Your task to perform on an android device: manage bookmarks in the chrome app Image 0: 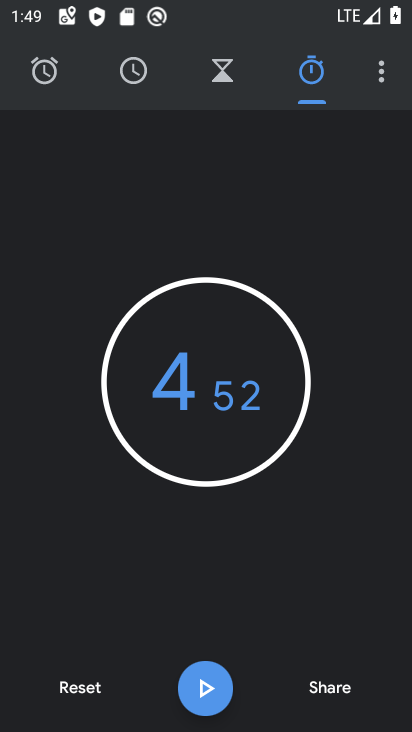
Step 0: press home button
Your task to perform on an android device: manage bookmarks in the chrome app Image 1: 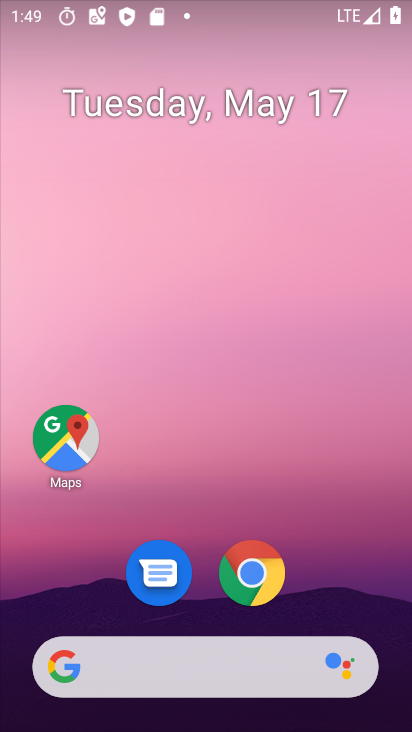
Step 1: click (264, 561)
Your task to perform on an android device: manage bookmarks in the chrome app Image 2: 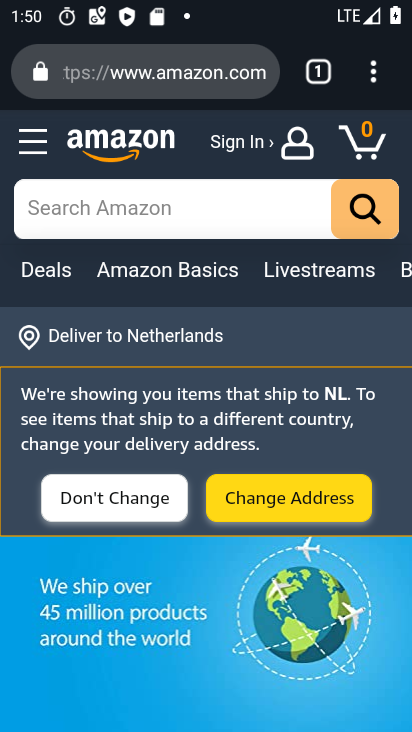
Step 2: click (376, 66)
Your task to perform on an android device: manage bookmarks in the chrome app Image 3: 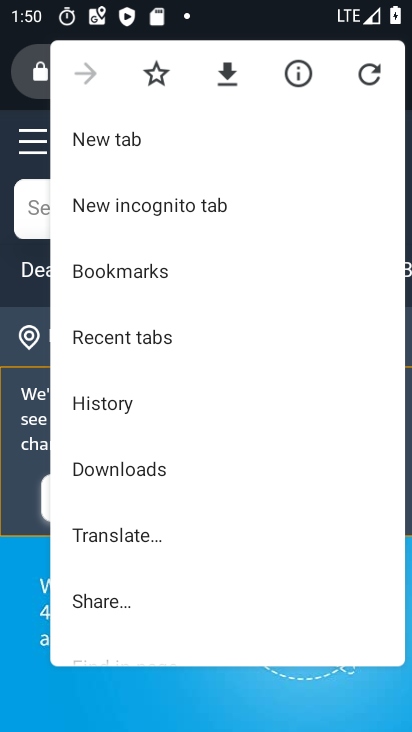
Step 3: click (172, 278)
Your task to perform on an android device: manage bookmarks in the chrome app Image 4: 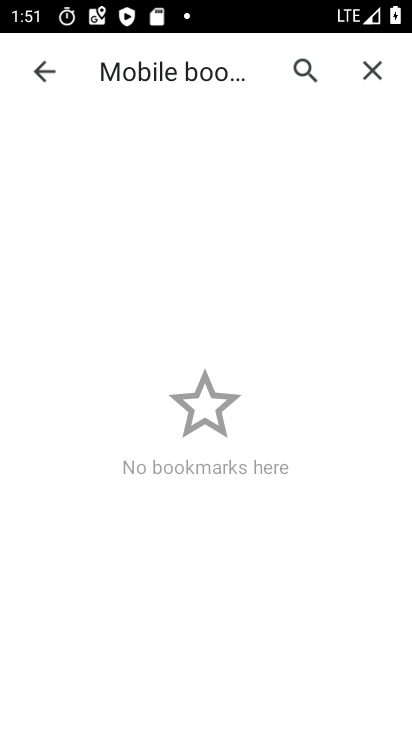
Step 4: click (383, 77)
Your task to perform on an android device: manage bookmarks in the chrome app Image 5: 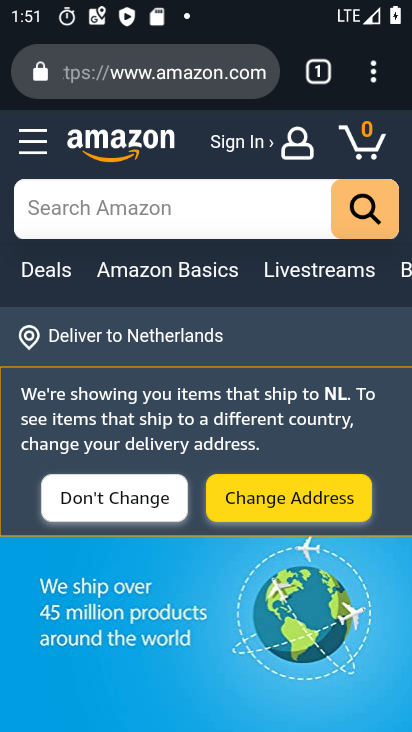
Step 5: click (371, 69)
Your task to perform on an android device: manage bookmarks in the chrome app Image 6: 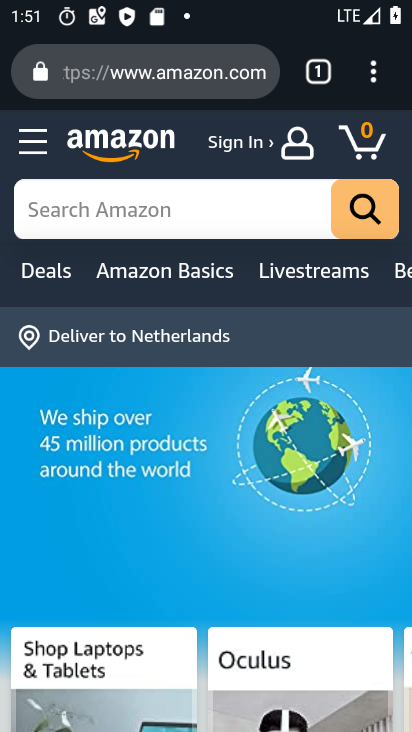
Step 6: click (377, 64)
Your task to perform on an android device: manage bookmarks in the chrome app Image 7: 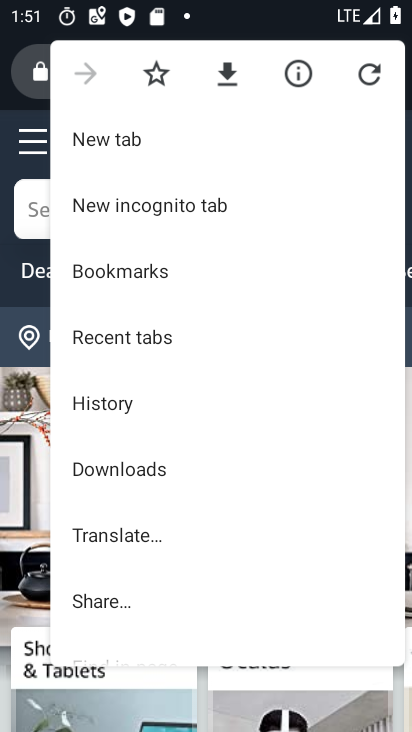
Step 7: click (127, 273)
Your task to perform on an android device: manage bookmarks in the chrome app Image 8: 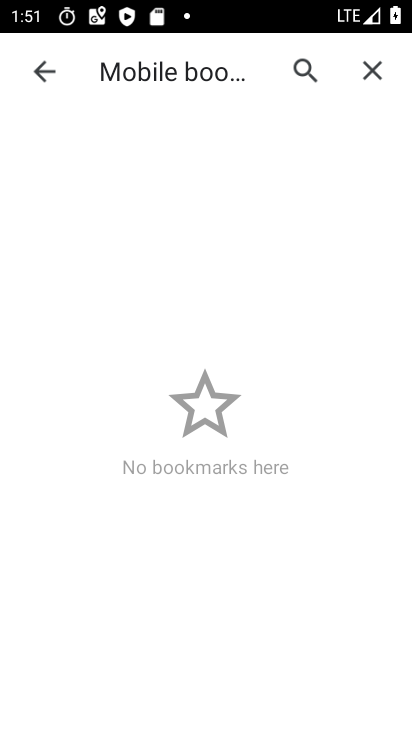
Step 8: task complete